Your task to perform on an android device: View the shopping cart on newegg.com. Search for razer deathadder on newegg.com, select the first entry, and add it to the cart. Image 0: 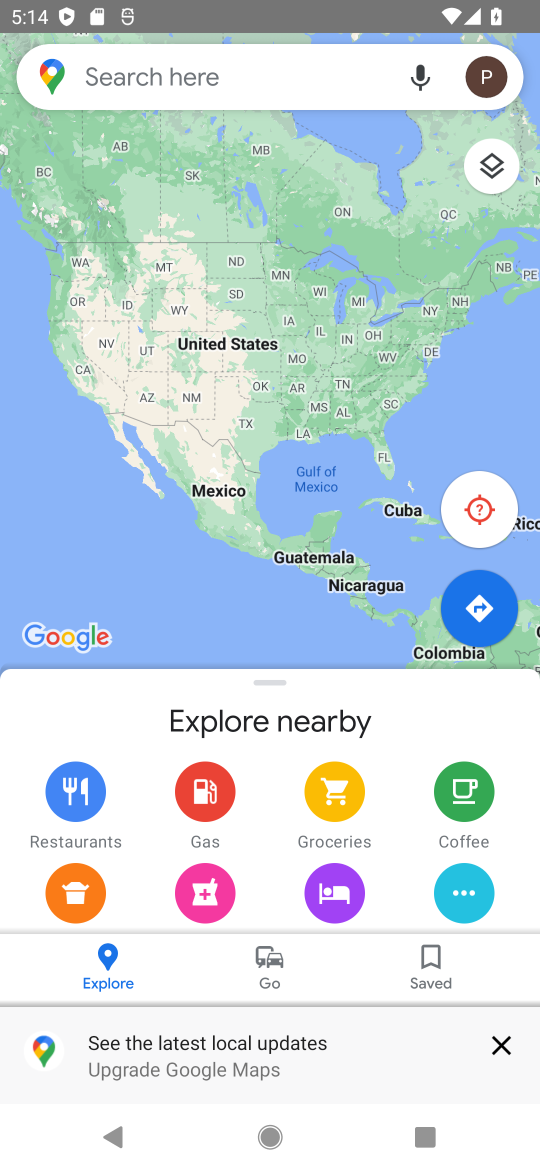
Step 0: press home button
Your task to perform on an android device: View the shopping cart on newegg.com. Search for razer deathadder on newegg.com, select the first entry, and add it to the cart. Image 1: 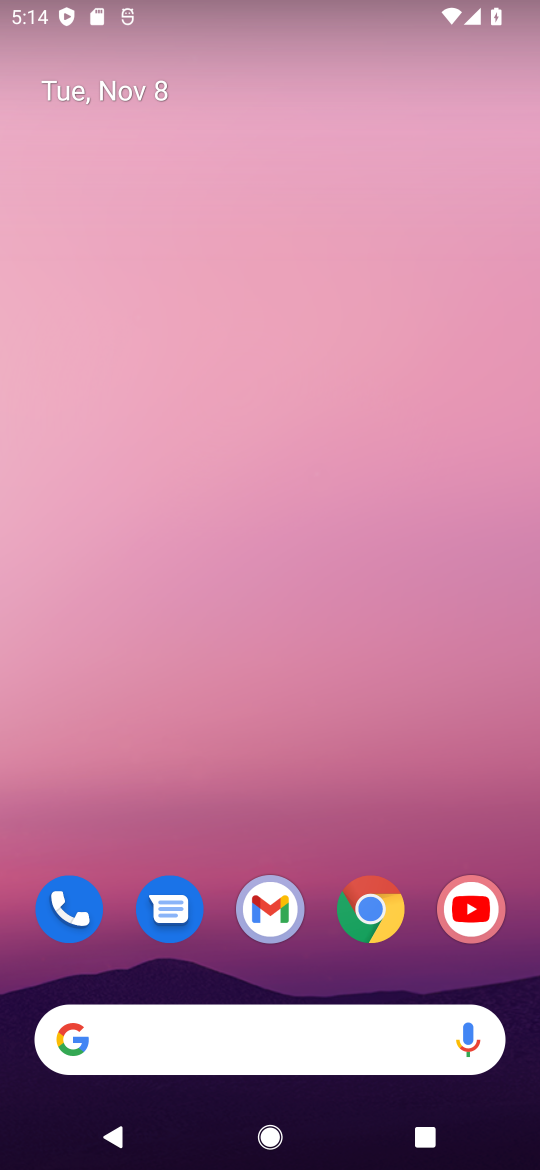
Step 1: click (383, 898)
Your task to perform on an android device: View the shopping cart on newegg.com. Search for razer deathadder on newegg.com, select the first entry, and add it to the cart. Image 2: 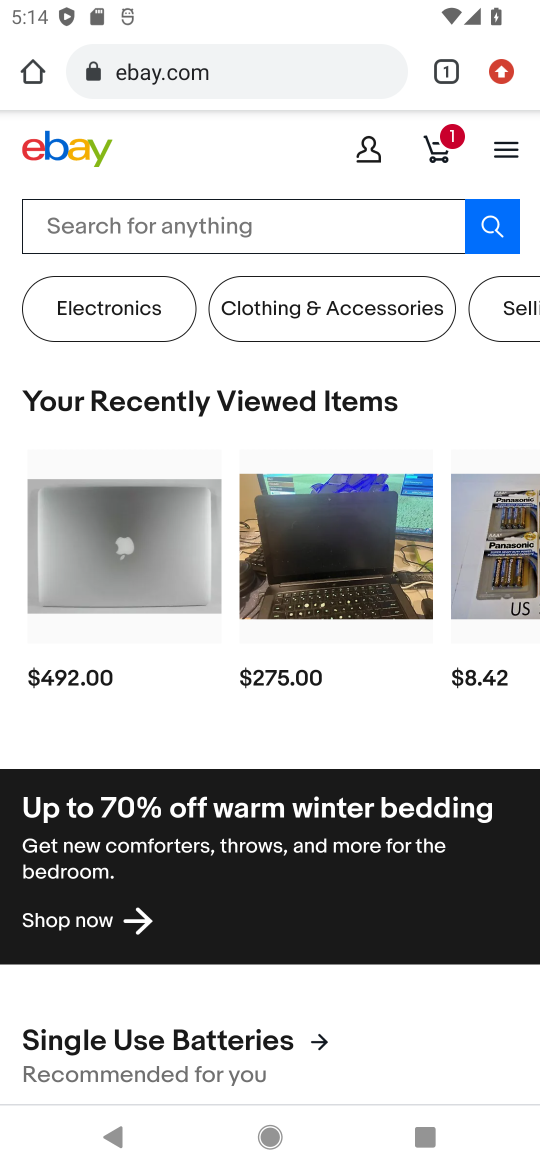
Step 2: click (199, 78)
Your task to perform on an android device: View the shopping cart on newegg.com. Search for razer deathadder on newegg.com, select the first entry, and add it to the cart. Image 3: 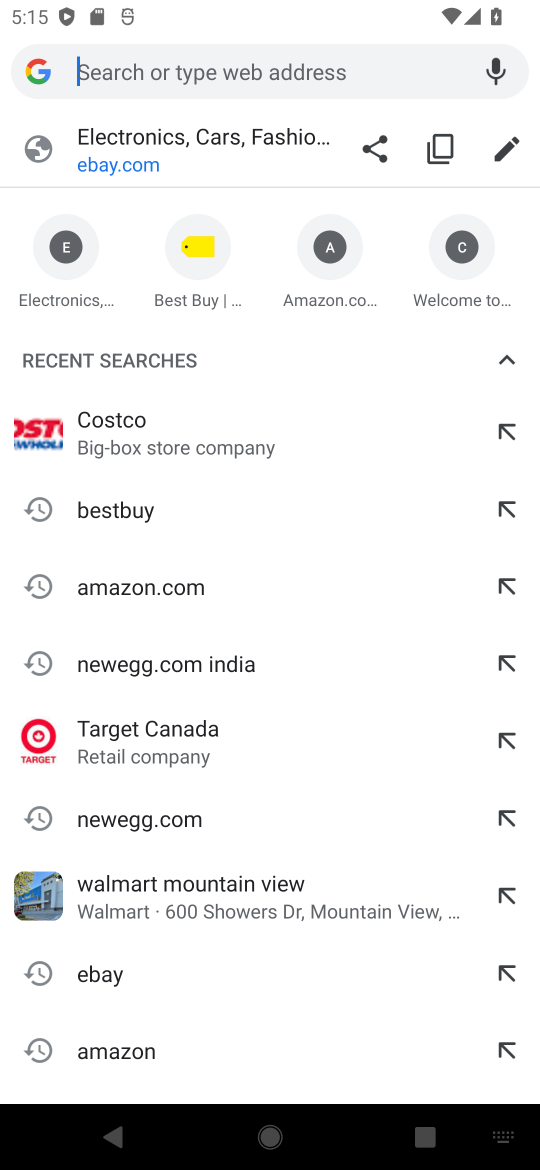
Step 3: type "newegg.com"
Your task to perform on an android device: View the shopping cart on newegg.com. Search for razer deathadder on newegg.com, select the first entry, and add it to the cart. Image 4: 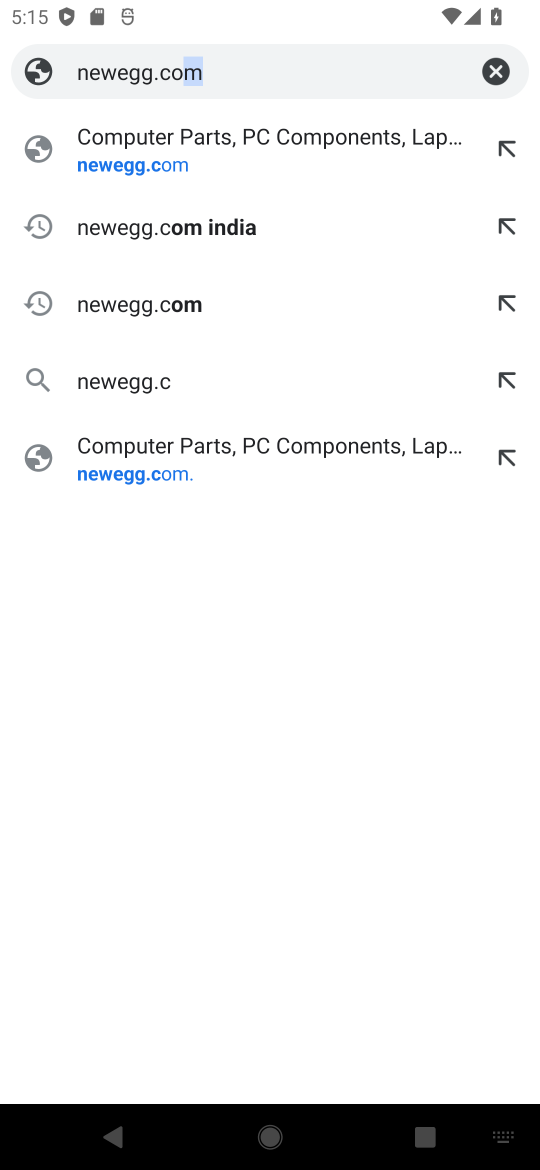
Step 4: press enter
Your task to perform on an android device: View the shopping cart on newegg.com. Search for razer deathadder on newegg.com, select the first entry, and add it to the cart. Image 5: 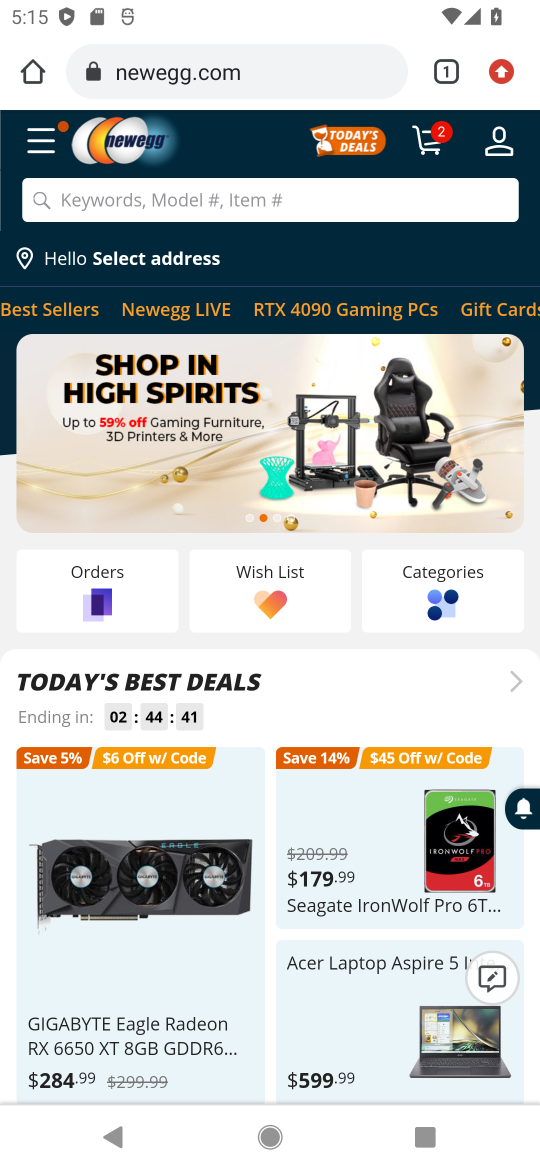
Step 5: click (304, 195)
Your task to perform on an android device: View the shopping cart on newegg.com. Search for razer deathadder on newegg.com, select the first entry, and add it to the cart. Image 6: 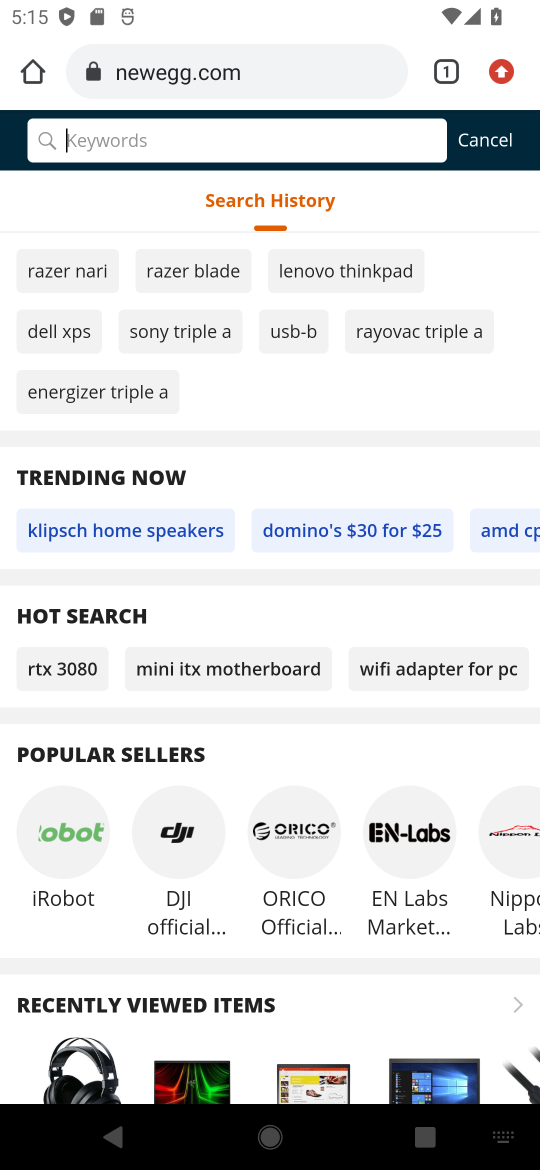
Step 6: type "razer deathadder"
Your task to perform on an android device: View the shopping cart on newegg.com. Search for razer deathadder on newegg.com, select the first entry, and add it to the cart. Image 7: 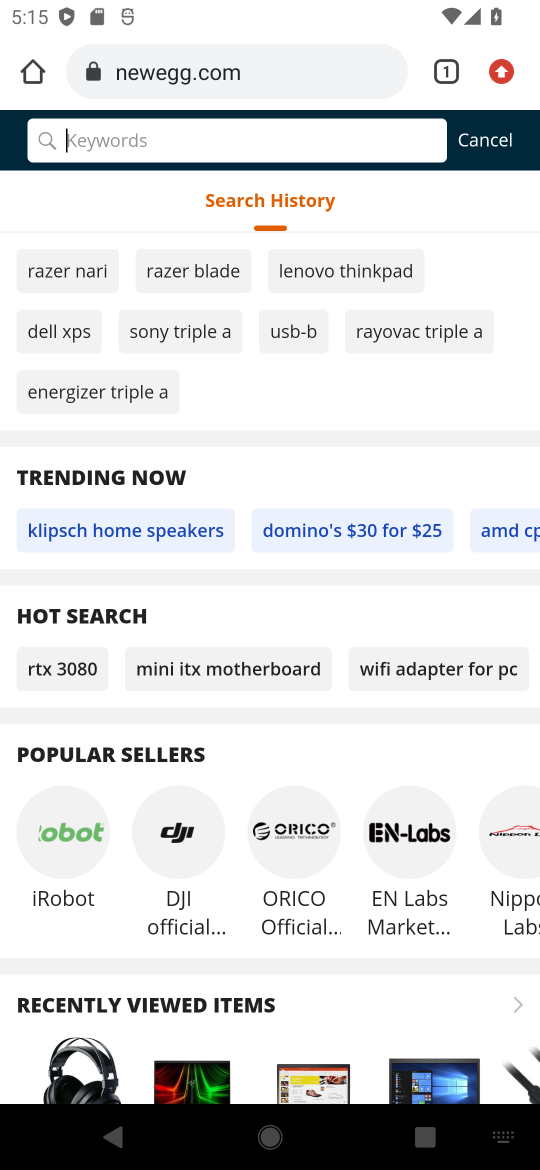
Step 7: press enter
Your task to perform on an android device: View the shopping cart on newegg.com. Search for razer deathadder on newegg.com, select the first entry, and add it to the cart. Image 8: 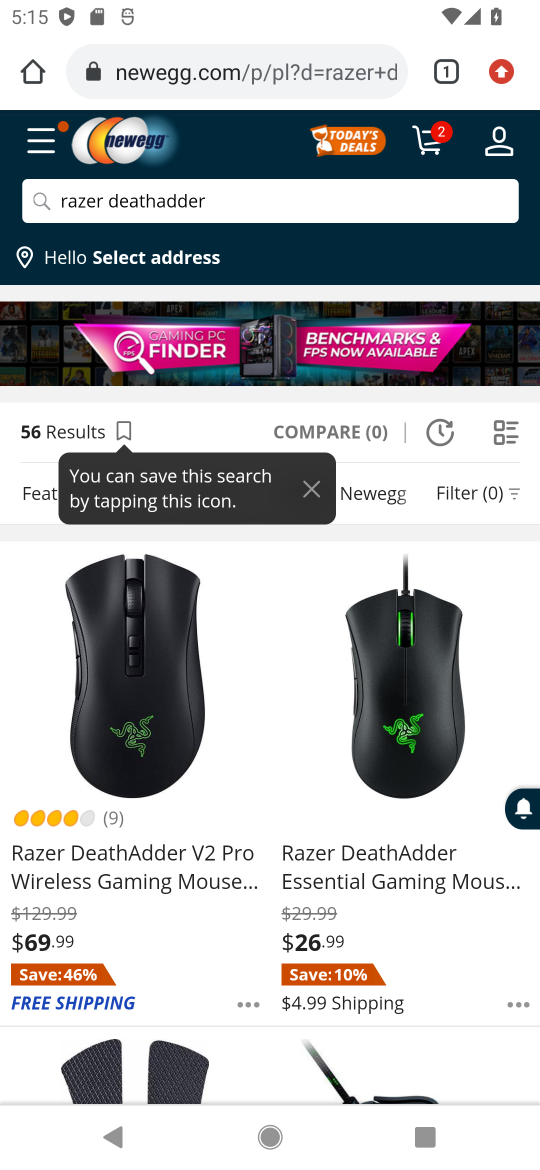
Step 8: drag from (247, 966) to (366, 492)
Your task to perform on an android device: View the shopping cart on newegg.com. Search for razer deathadder on newegg.com, select the first entry, and add it to the cart. Image 9: 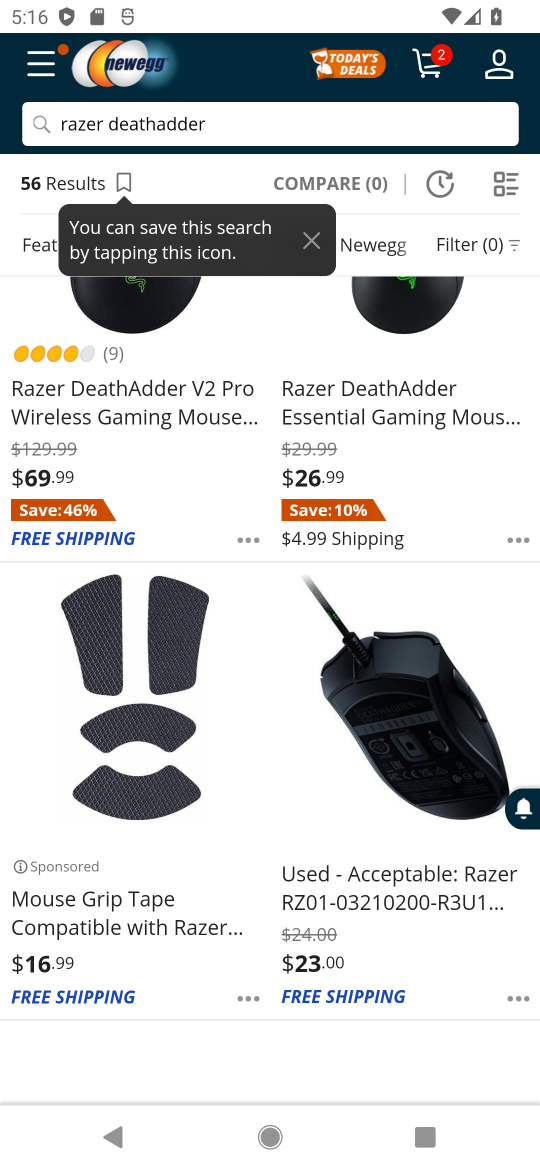
Step 9: click (138, 390)
Your task to perform on an android device: View the shopping cart on newegg.com. Search for razer deathadder on newegg.com, select the first entry, and add it to the cart. Image 10: 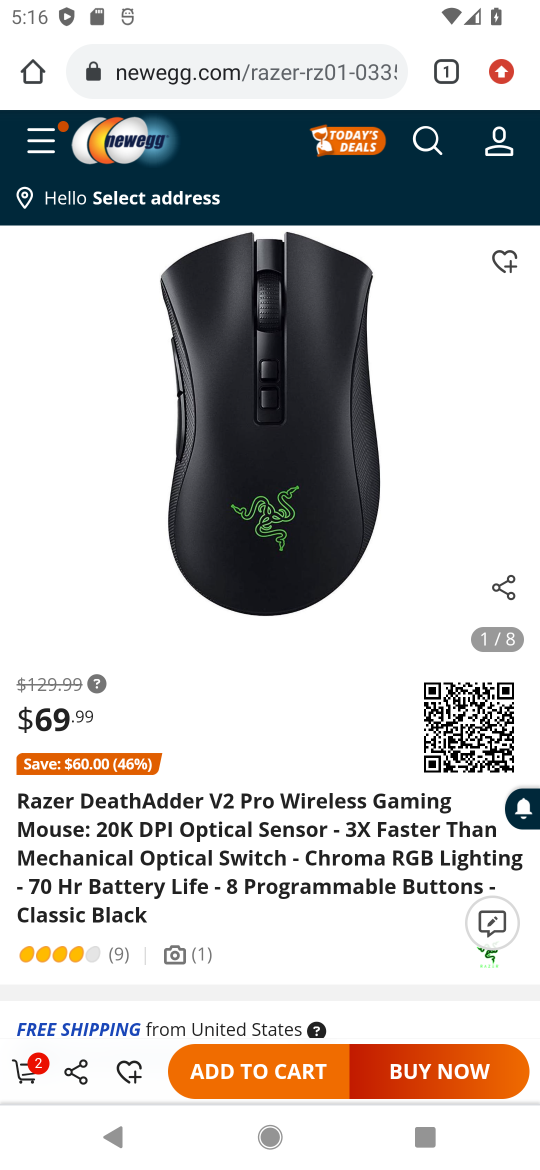
Step 10: click (250, 1076)
Your task to perform on an android device: View the shopping cart on newegg.com. Search for razer deathadder on newegg.com, select the first entry, and add it to the cart. Image 11: 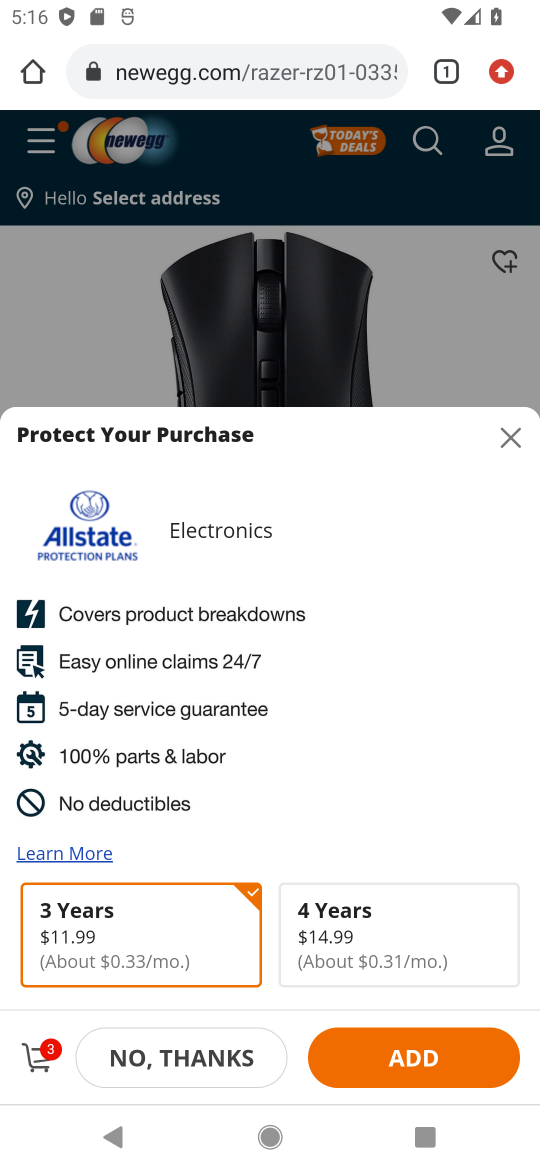
Step 11: click (44, 1044)
Your task to perform on an android device: View the shopping cart on newegg.com. Search for razer deathadder on newegg.com, select the first entry, and add it to the cart. Image 12: 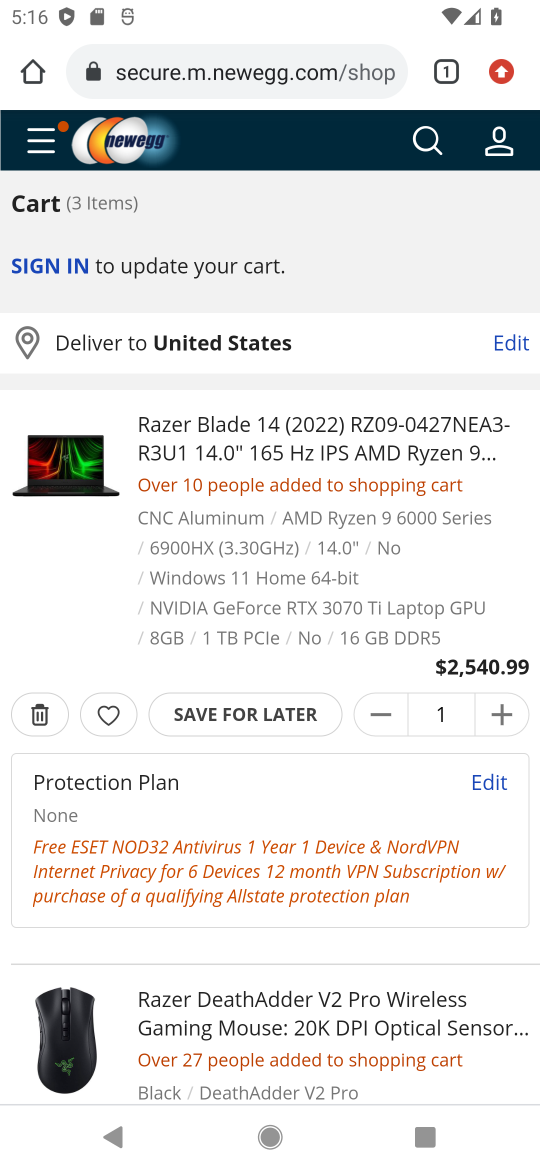
Step 12: click (40, 713)
Your task to perform on an android device: View the shopping cart on newegg.com. Search for razer deathadder on newegg.com, select the first entry, and add it to the cart. Image 13: 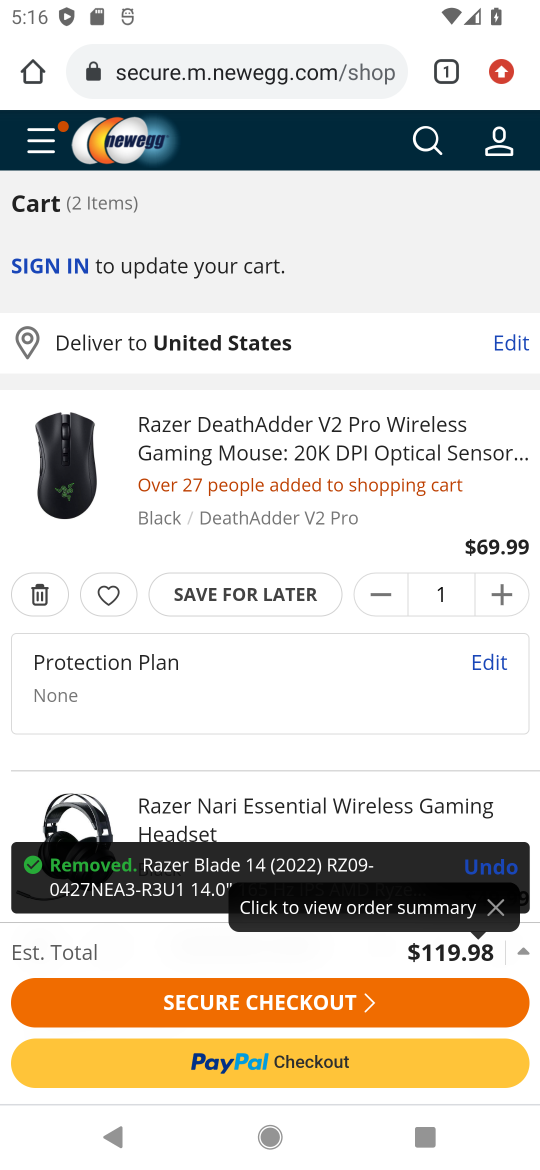
Step 13: drag from (252, 778) to (374, 472)
Your task to perform on an android device: View the shopping cart on newegg.com. Search for razer deathadder on newegg.com, select the first entry, and add it to the cart. Image 14: 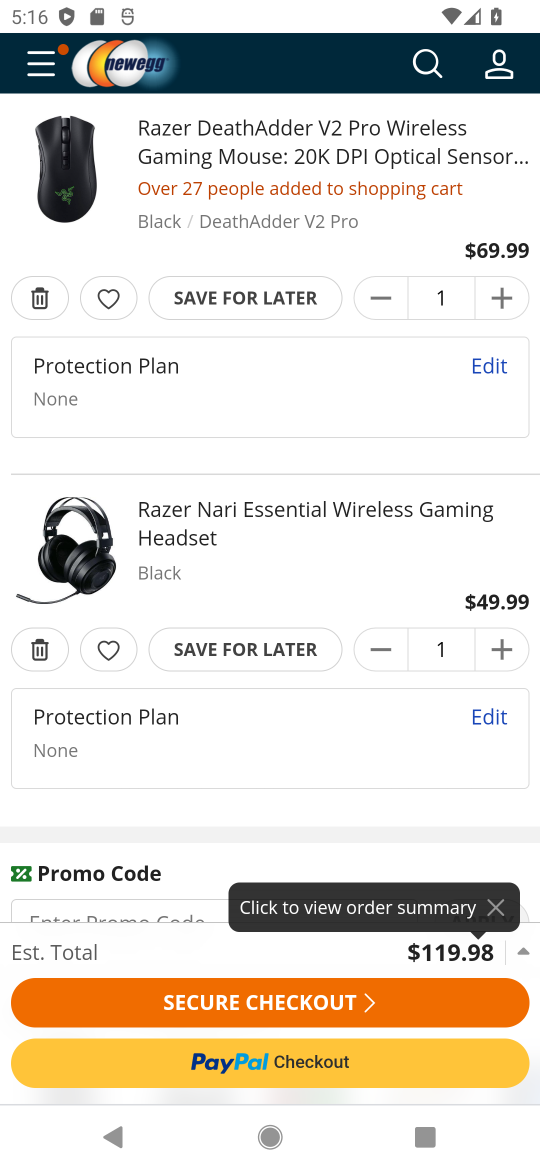
Step 14: click (42, 657)
Your task to perform on an android device: View the shopping cart on newegg.com. Search for razer deathadder on newegg.com, select the first entry, and add it to the cart. Image 15: 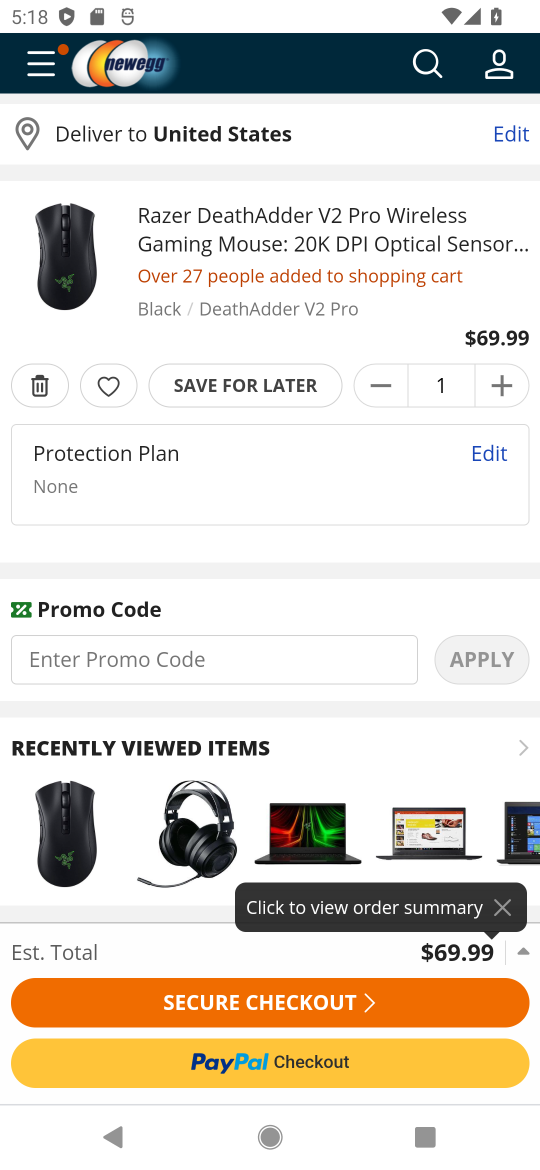
Step 15: task complete